Your task to perform on an android device: toggle priority inbox in the gmail app Image 0: 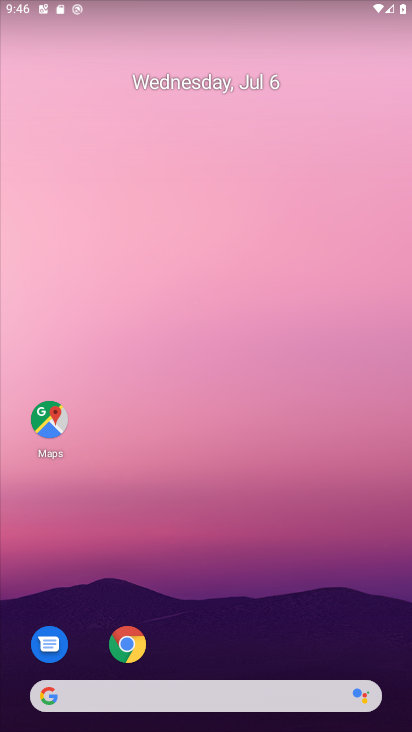
Step 0: drag from (172, 659) to (172, 136)
Your task to perform on an android device: toggle priority inbox in the gmail app Image 1: 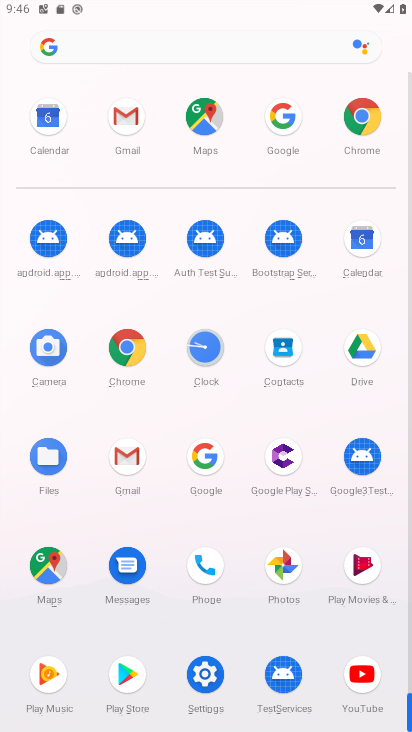
Step 1: click (130, 461)
Your task to perform on an android device: toggle priority inbox in the gmail app Image 2: 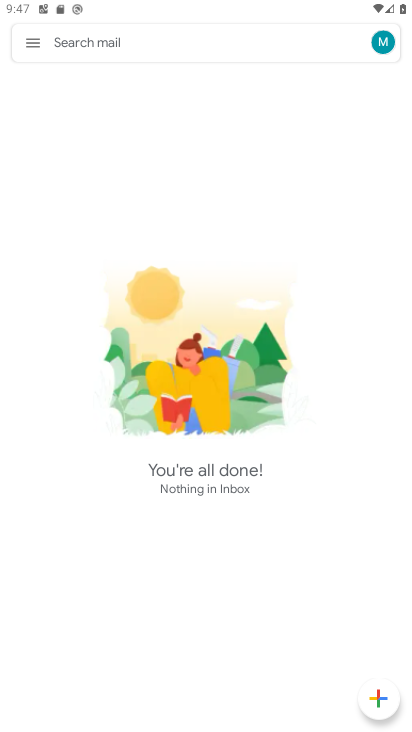
Step 2: drag from (160, 508) to (152, 314)
Your task to perform on an android device: toggle priority inbox in the gmail app Image 3: 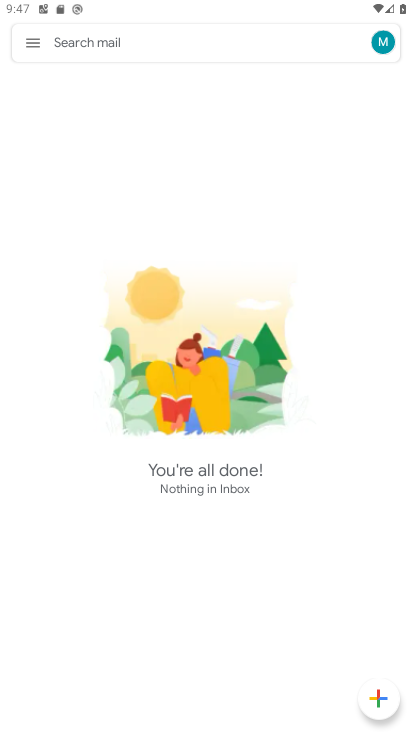
Step 3: click (40, 46)
Your task to perform on an android device: toggle priority inbox in the gmail app Image 4: 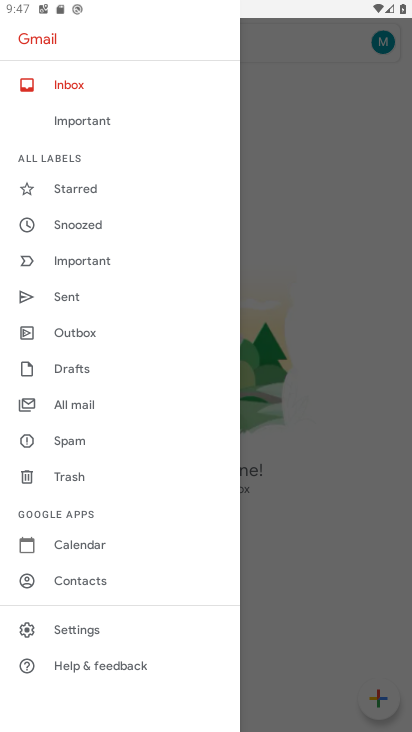
Step 4: click (110, 625)
Your task to perform on an android device: toggle priority inbox in the gmail app Image 5: 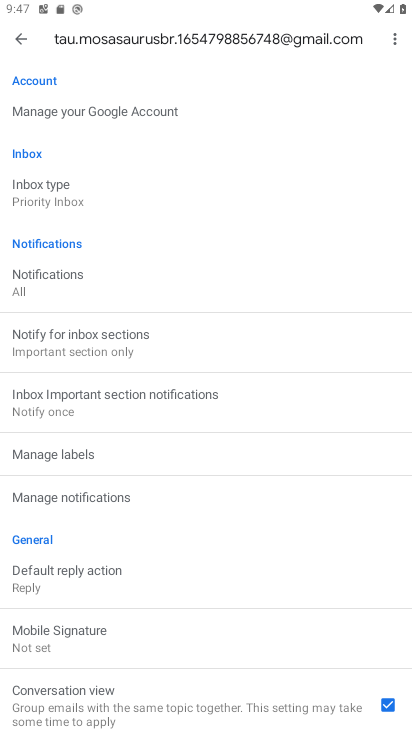
Step 5: click (70, 190)
Your task to perform on an android device: toggle priority inbox in the gmail app Image 6: 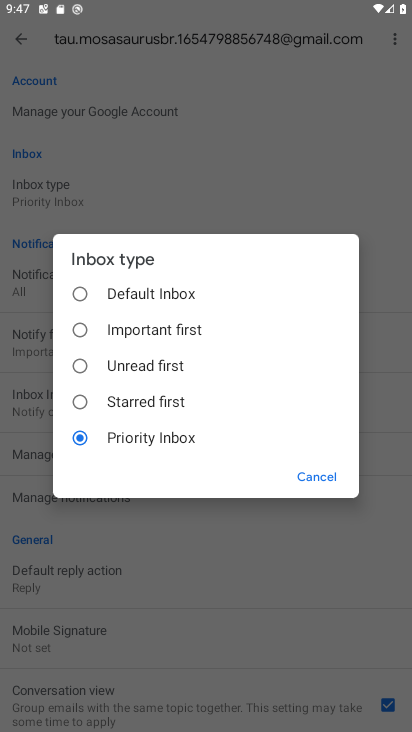
Step 6: click (120, 291)
Your task to perform on an android device: toggle priority inbox in the gmail app Image 7: 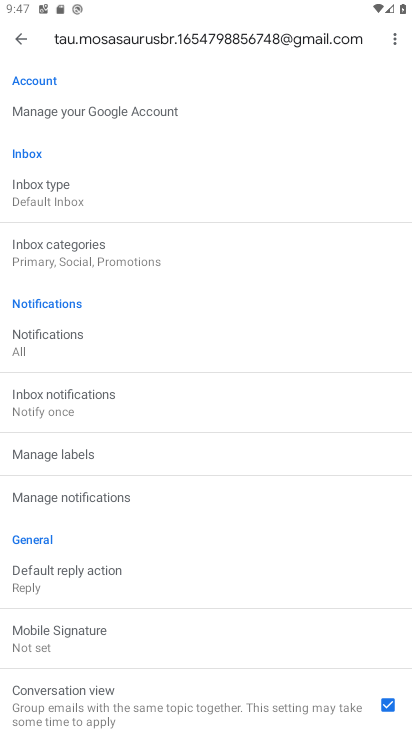
Step 7: task complete